Your task to perform on an android device: delete browsing data in the chrome app Image 0: 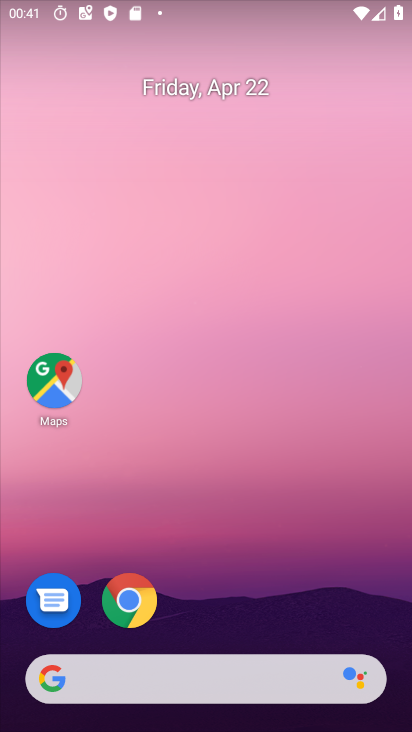
Step 0: click (126, 595)
Your task to perform on an android device: delete browsing data in the chrome app Image 1: 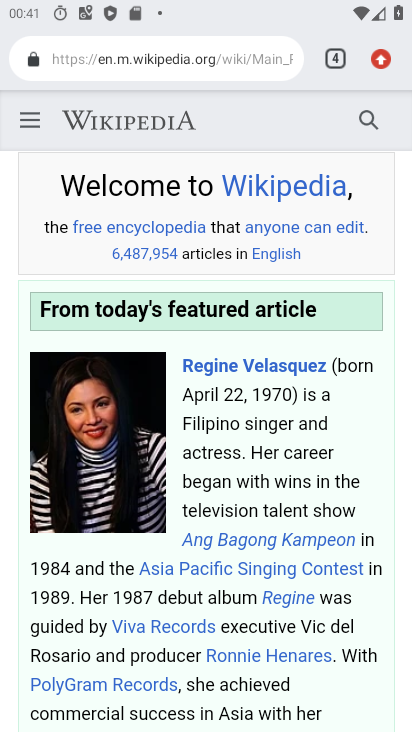
Step 1: click (381, 62)
Your task to perform on an android device: delete browsing data in the chrome app Image 2: 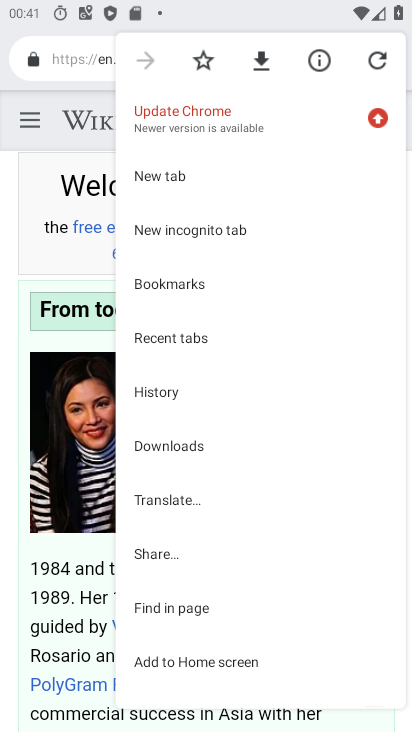
Step 2: click (181, 405)
Your task to perform on an android device: delete browsing data in the chrome app Image 3: 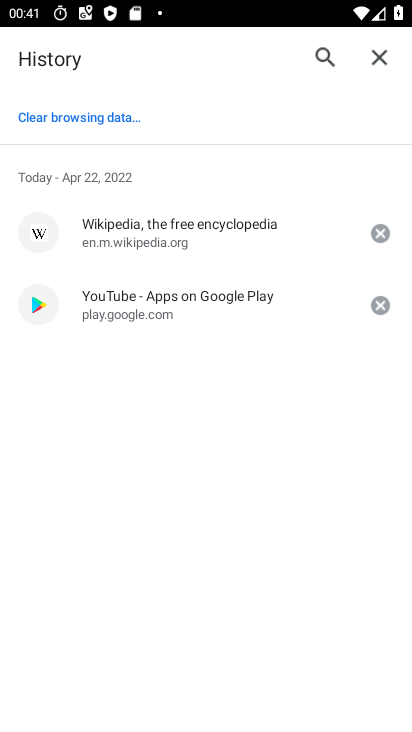
Step 3: click (97, 115)
Your task to perform on an android device: delete browsing data in the chrome app Image 4: 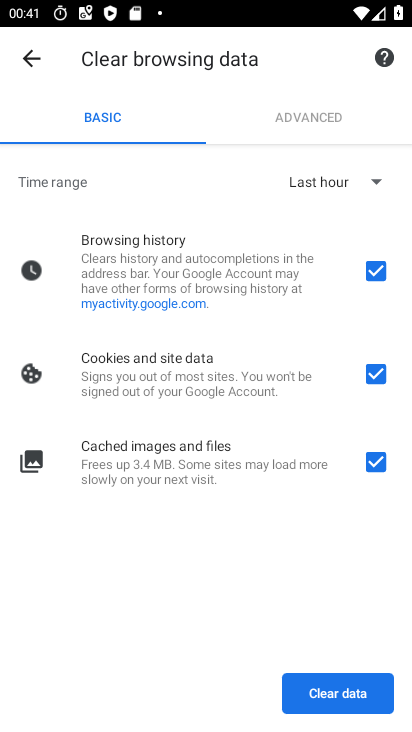
Step 4: click (343, 689)
Your task to perform on an android device: delete browsing data in the chrome app Image 5: 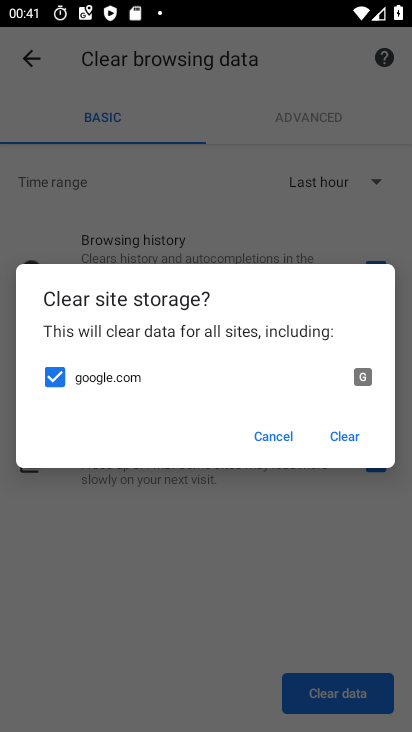
Step 5: click (340, 432)
Your task to perform on an android device: delete browsing data in the chrome app Image 6: 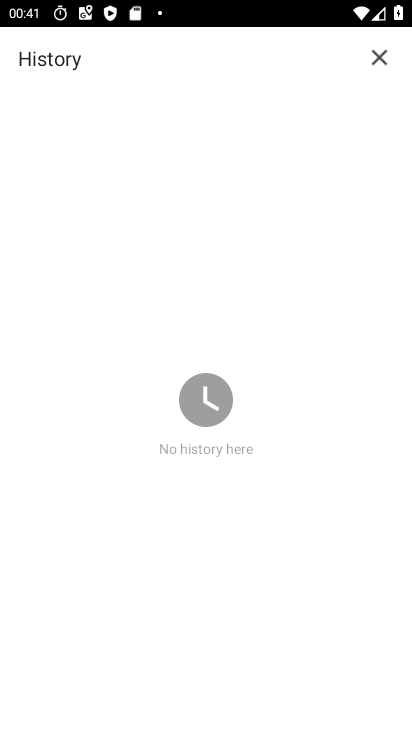
Step 6: task complete